Your task to perform on an android device: see creations saved in the google photos Image 0: 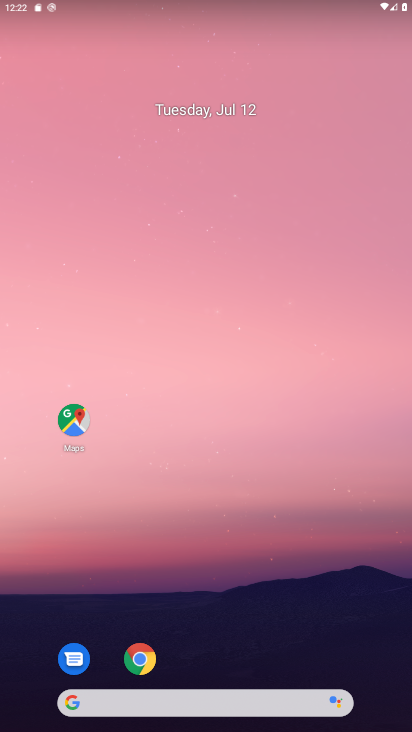
Step 0: drag from (187, 720) to (183, 175)
Your task to perform on an android device: see creations saved in the google photos Image 1: 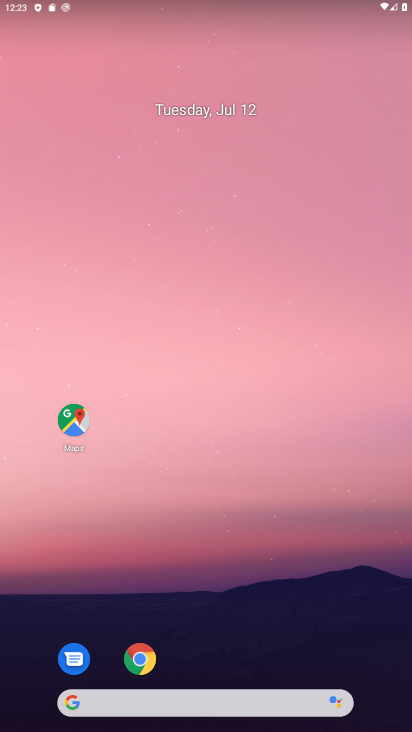
Step 1: drag from (301, 721) to (294, 91)
Your task to perform on an android device: see creations saved in the google photos Image 2: 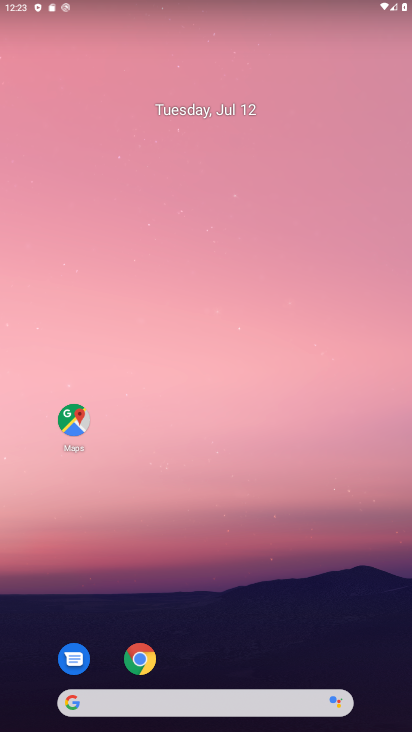
Step 2: click (259, 728)
Your task to perform on an android device: see creations saved in the google photos Image 3: 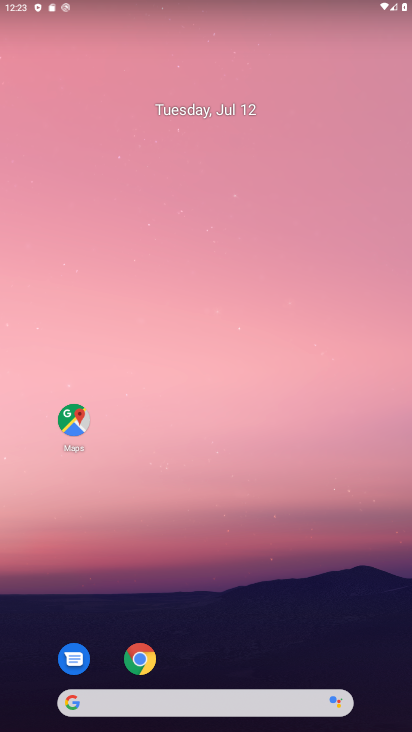
Step 3: click (249, 162)
Your task to perform on an android device: see creations saved in the google photos Image 4: 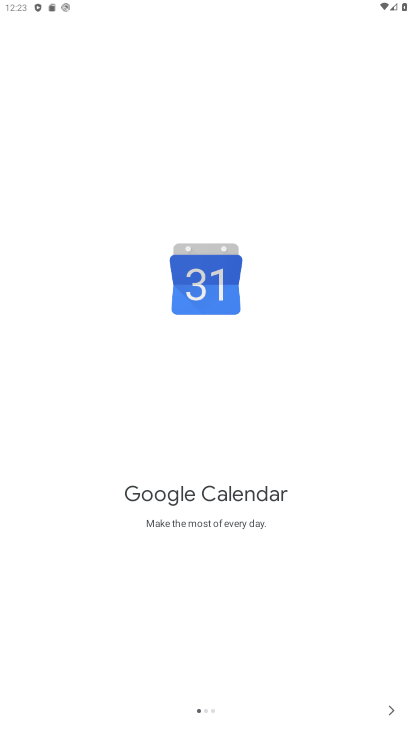
Step 4: press home button
Your task to perform on an android device: see creations saved in the google photos Image 5: 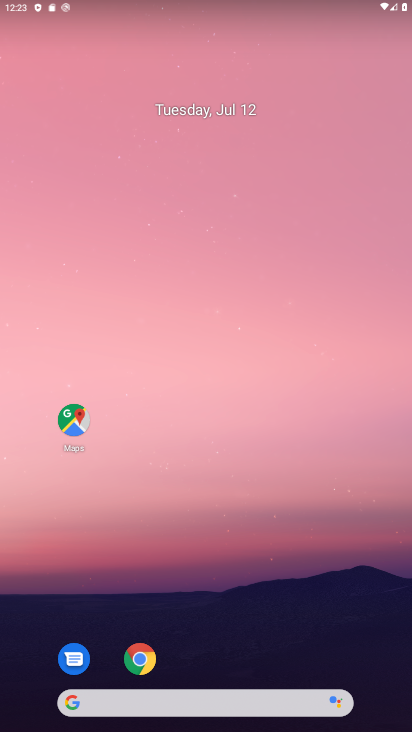
Step 5: drag from (270, 724) to (257, 112)
Your task to perform on an android device: see creations saved in the google photos Image 6: 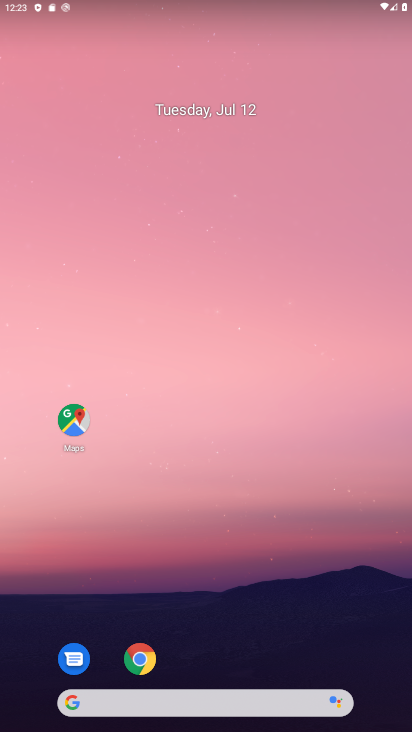
Step 6: drag from (245, 671) to (235, 148)
Your task to perform on an android device: see creations saved in the google photos Image 7: 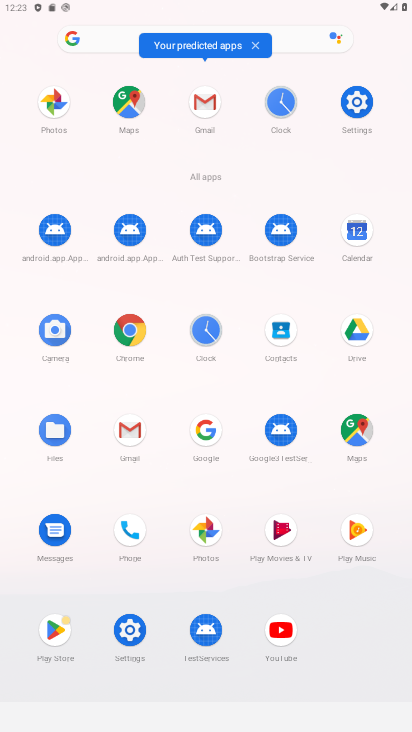
Step 7: click (207, 528)
Your task to perform on an android device: see creations saved in the google photos Image 8: 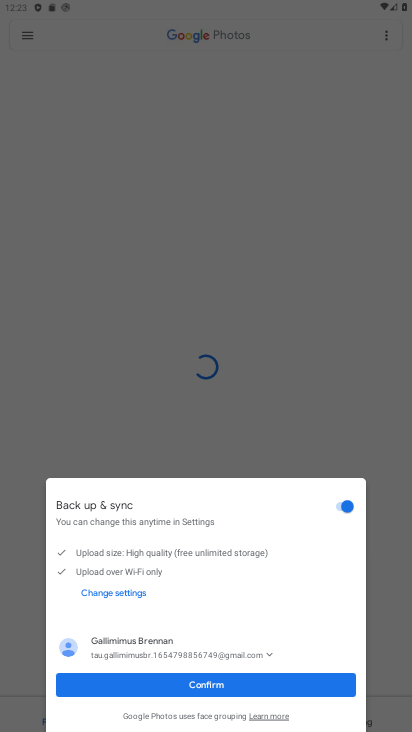
Step 8: click (212, 682)
Your task to perform on an android device: see creations saved in the google photos Image 9: 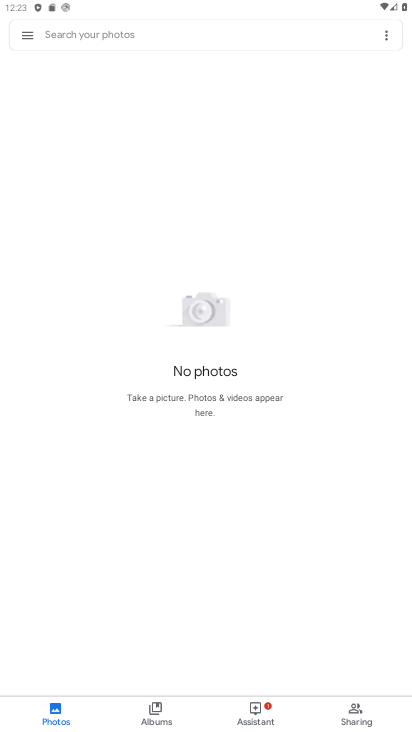
Step 9: click (245, 42)
Your task to perform on an android device: see creations saved in the google photos Image 10: 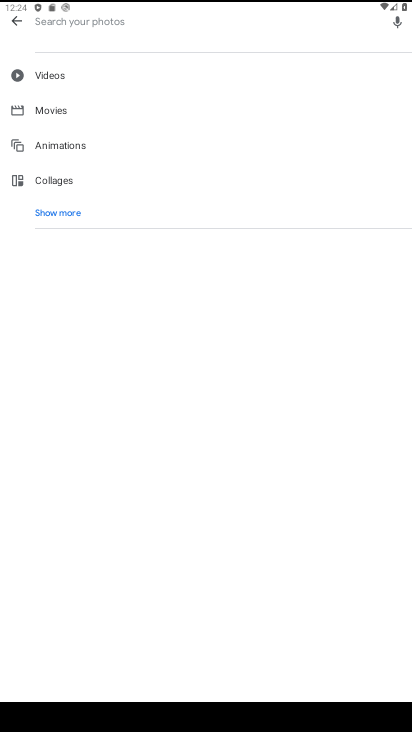
Step 10: click (57, 209)
Your task to perform on an android device: see creations saved in the google photos Image 11: 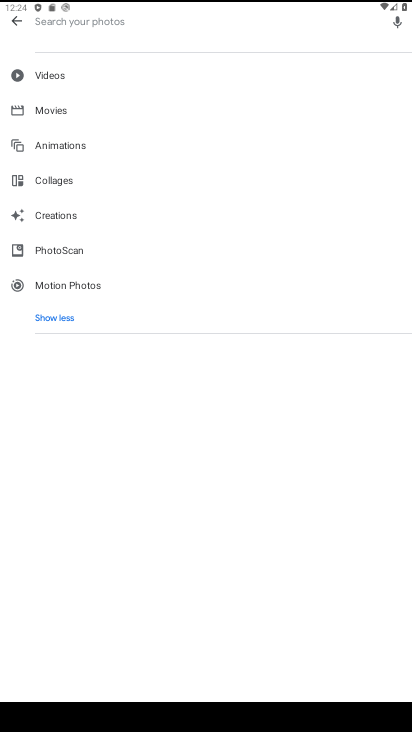
Step 11: click (58, 215)
Your task to perform on an android device: see creations saved in the google photos Image 12: 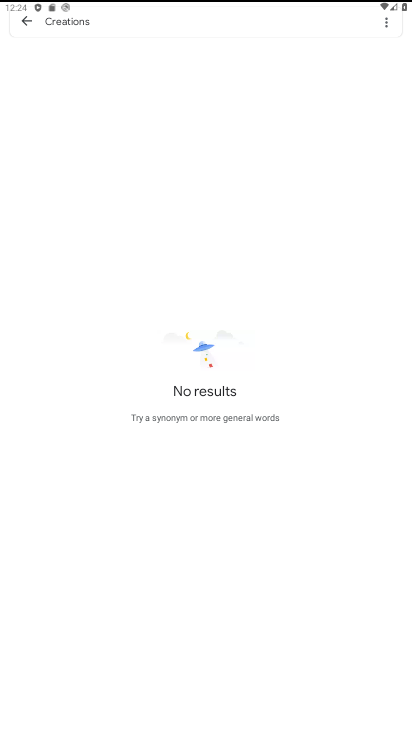
Step 12: task complete